Your task to perform on an android device: Go to Amazon Image 0: 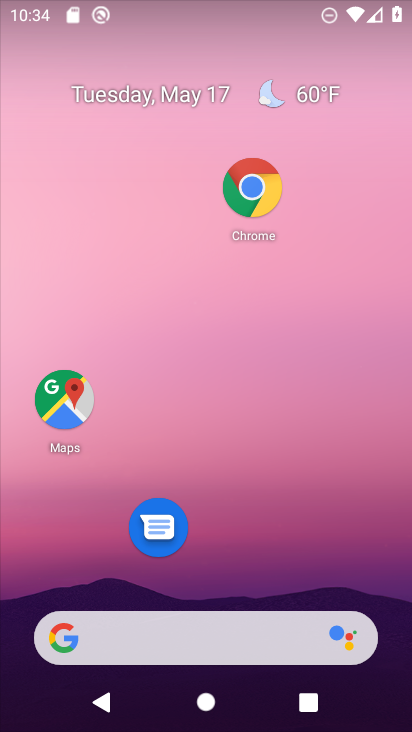
Step 0: click (264, 201)
Your task to perform on an android device: Go to Amazon Image 1: 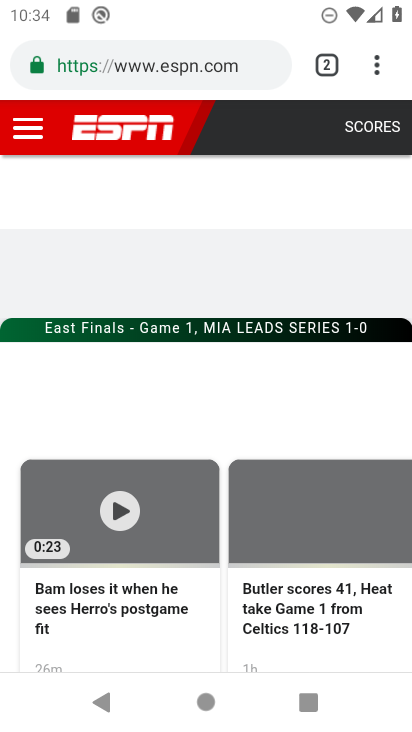
Step 1: click (315, 83)
Your task to perform on an android device: Go to Amazon Image 2: 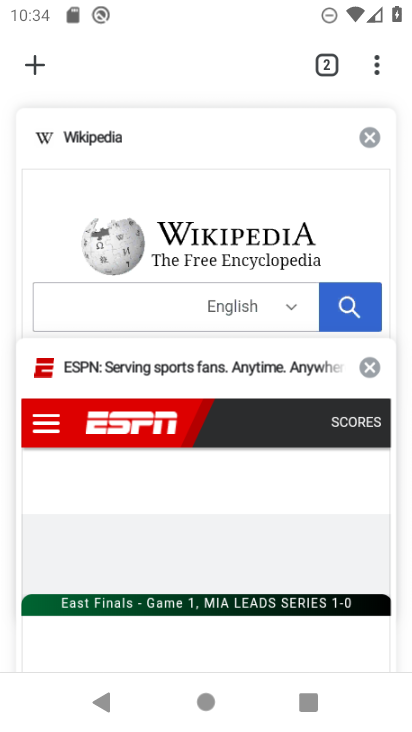
Step 2: click (53, 71)
Your task to perform on an android device: Go to Amazon Image 3: 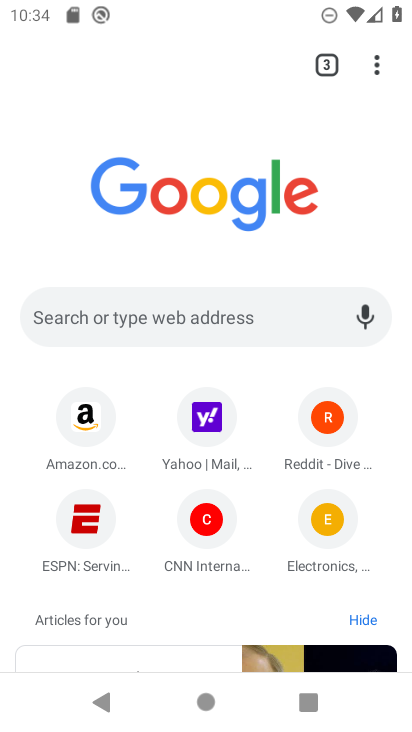
Step 3: click (95, 427)
Your task to perform on an android device: Go to Amazon Image 4: 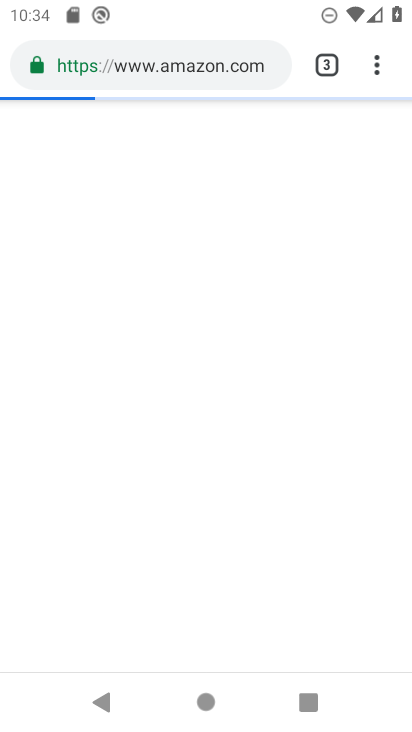
Step 4: task complete